Your task to perform on an android device: Go to accessibility settings Image 0: 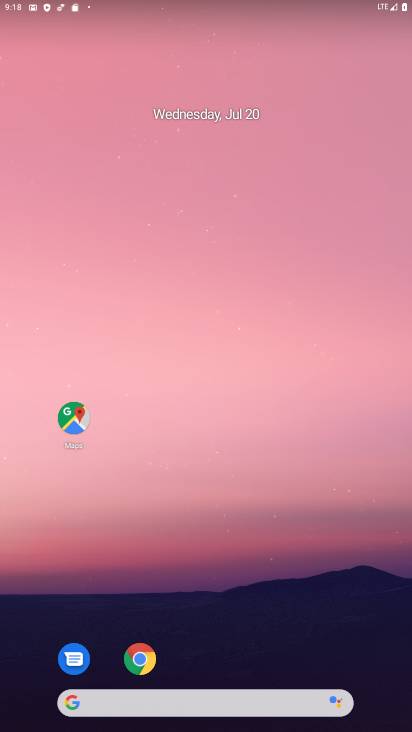
Step 0: drag from (238, 591) to (230, 317)
Your task to perform on an android device: Go to accessibility settings Image 1: 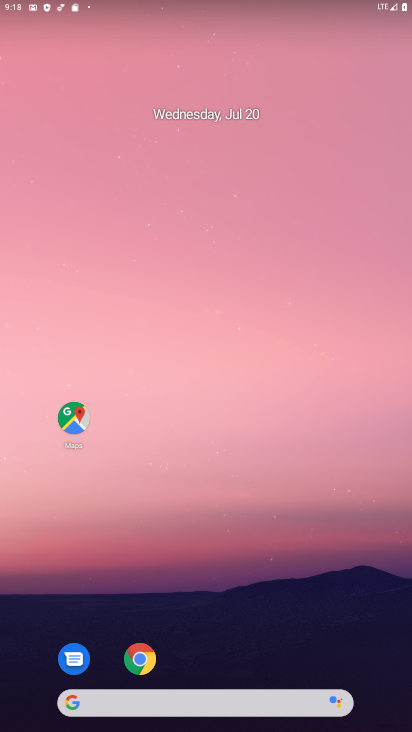
Step 1: drag from (211, 565) to (205, 39)
Your task to perform on an android device: Go to accessibility settings Image 2: 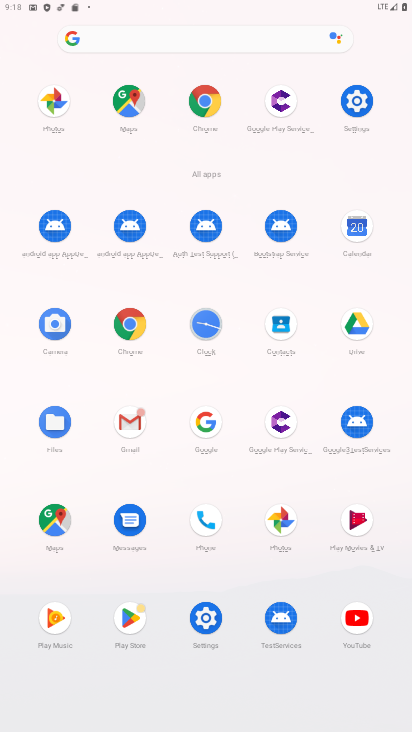
Step 2: click (359, 98)
Your task to perform on an android device: Go to accessibility settings Image 3: 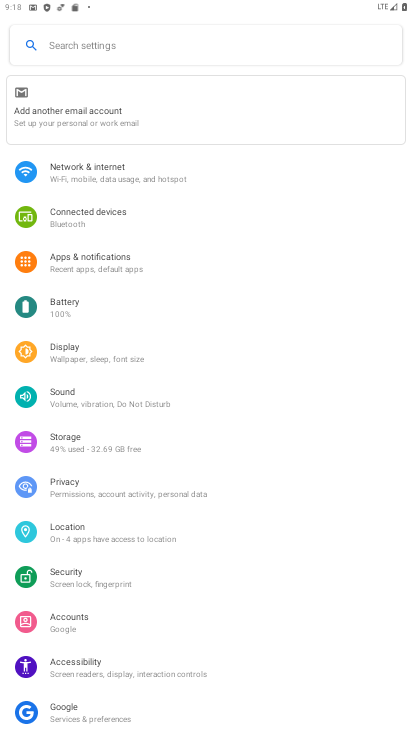
Step 3: click (71, 658)
Your task to perform on an android device: Go to accessibility settings Image 4: 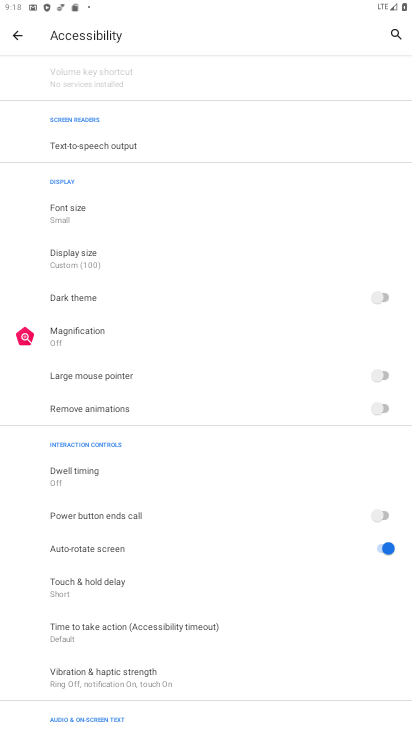
Step 4: task complete